Your task to perform on an android device: turn on translation in the chrome app Image 0: 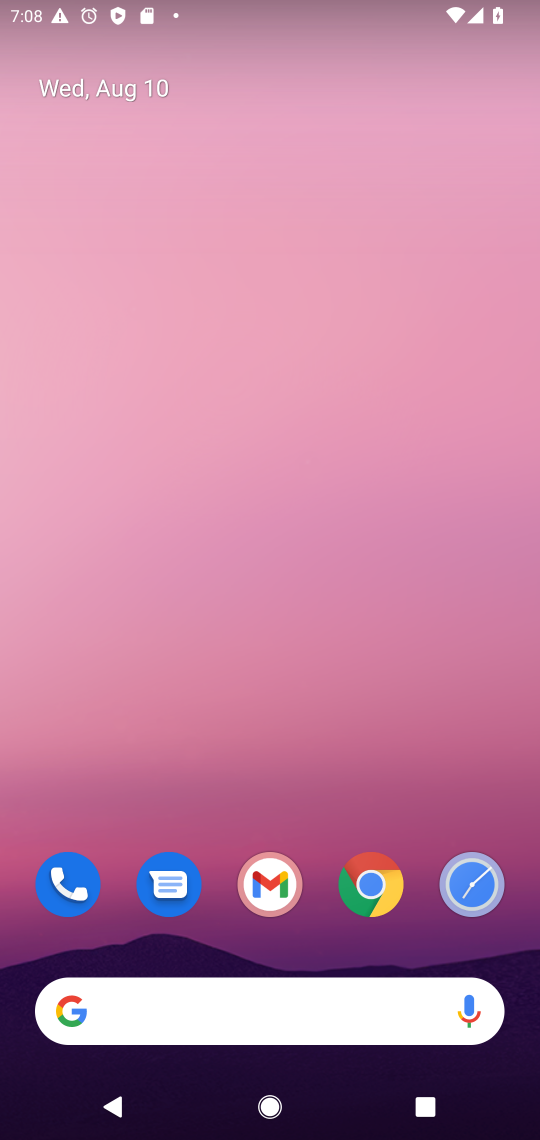
Step 0: click (363, 902)
Your task to perform on an android device: turn on translation in the chrome app Image 1: 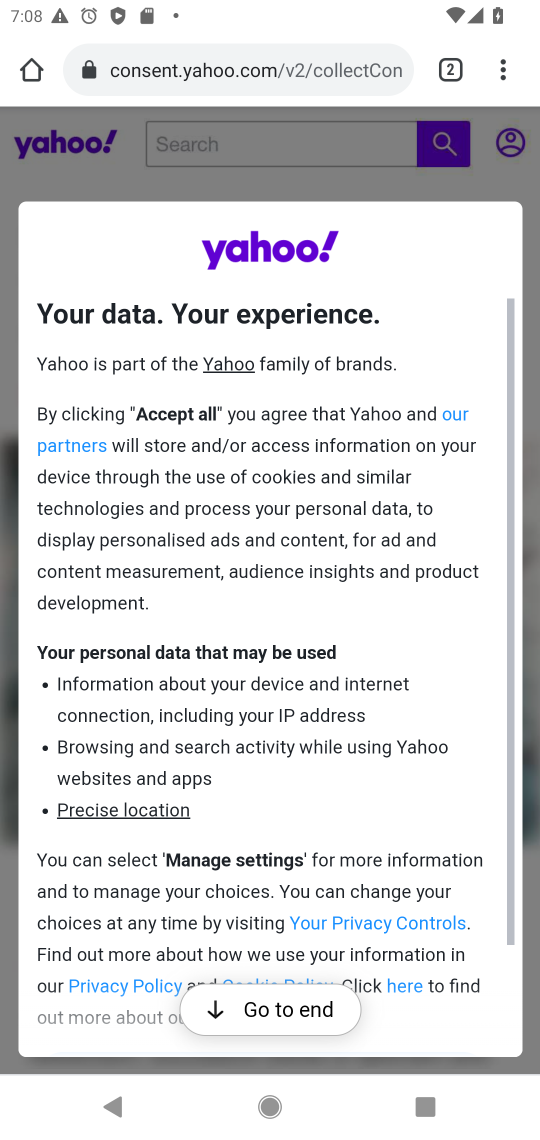
Step 1: click (509, 84)
Your task to perform on an android device: turn on translation in the chrome app Image 2: 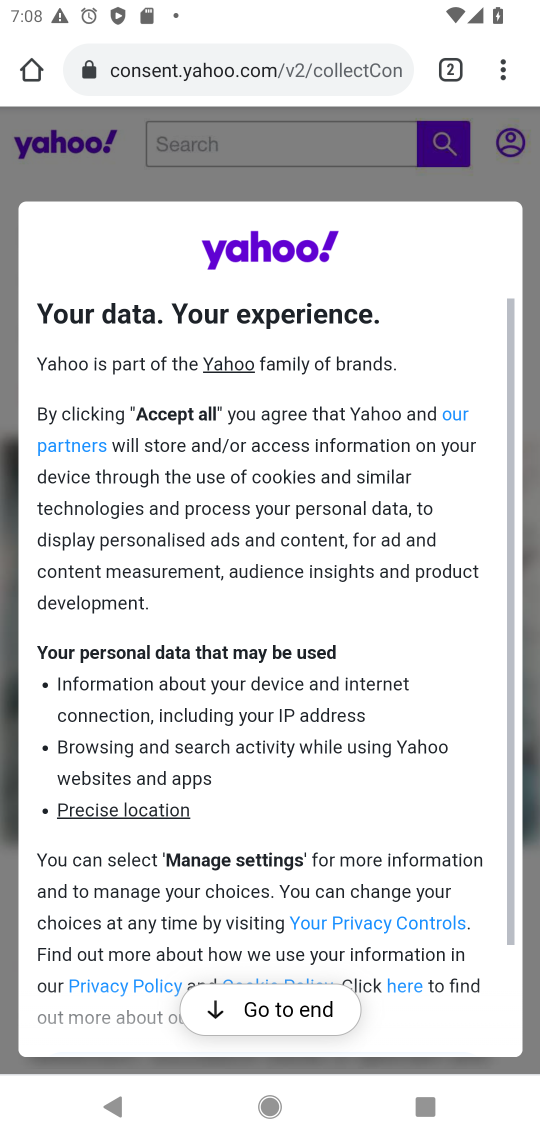
Step 2: click (506, 73)
Your task to perform on an android device: turn on translation in the chrome app Image 3: 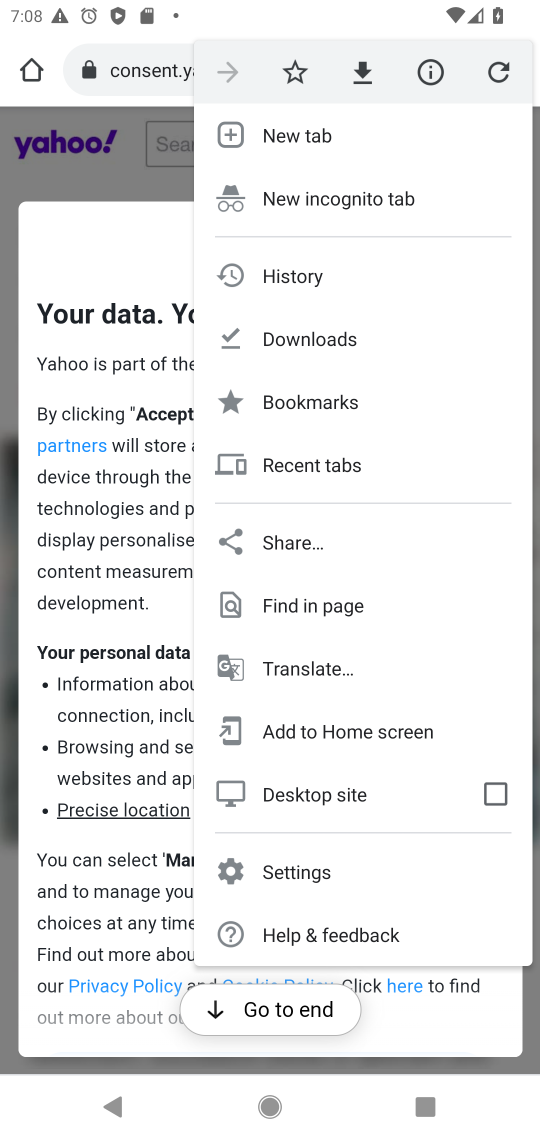
Step 3: click (311, 869)
Your task to perform on an android device: turn on translation in the chrome app Image 4: 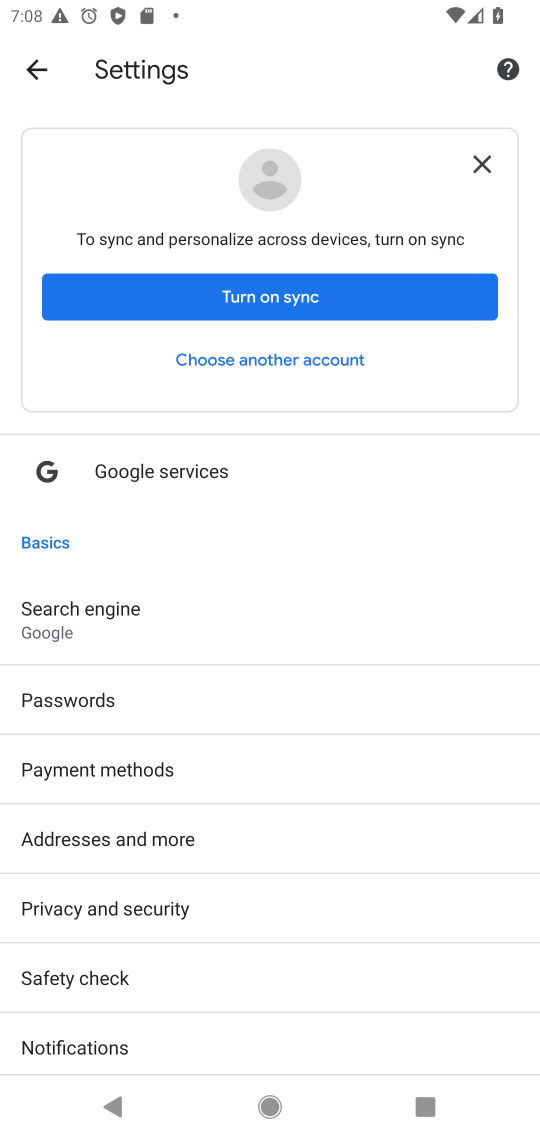
Step 4: drag from (355, 951) to (315, 669)
Your task to perform on an android device: turn on translation in the chrome app Image 5: 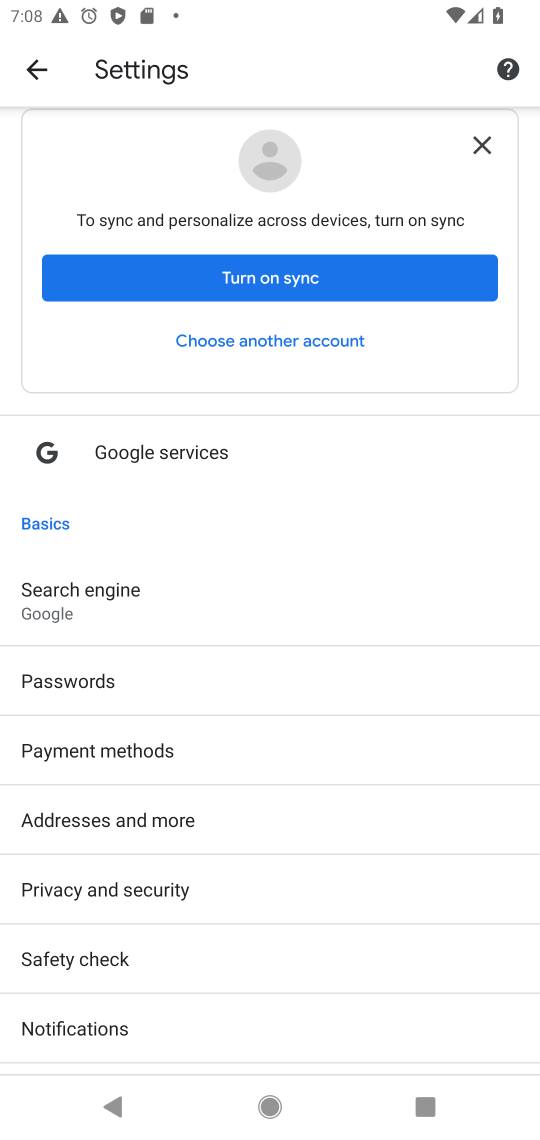
Step 5: drag from (411, 987) to (415, 539)
Your task to perform on an android device: turn on translation in the chrome app Image 6: 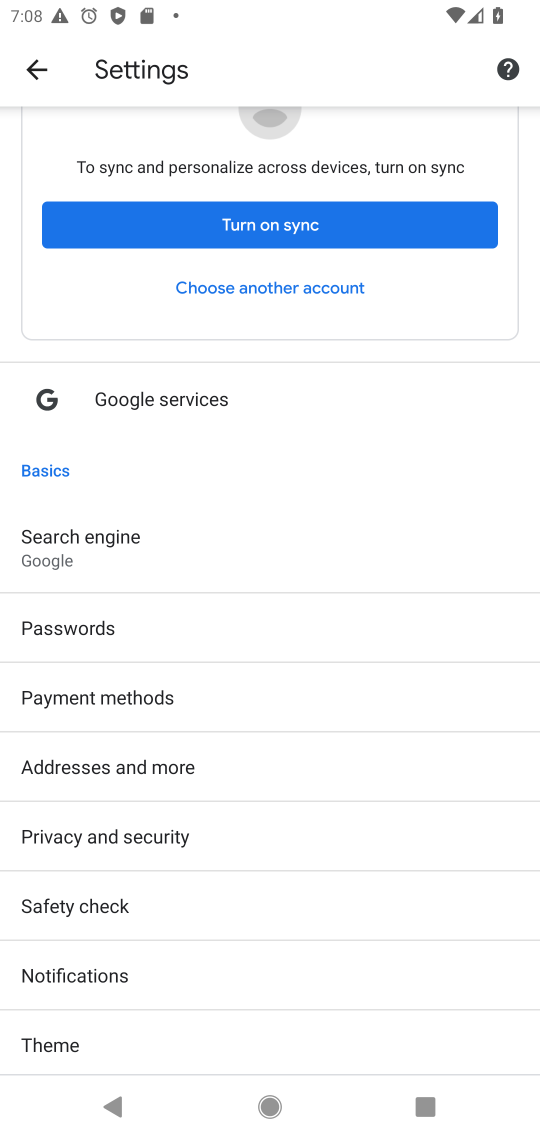
Step 6: drag from (405, 938) to (395, 709)
Your task to perform on an android device: turn on translation in the chrome app Image 7: 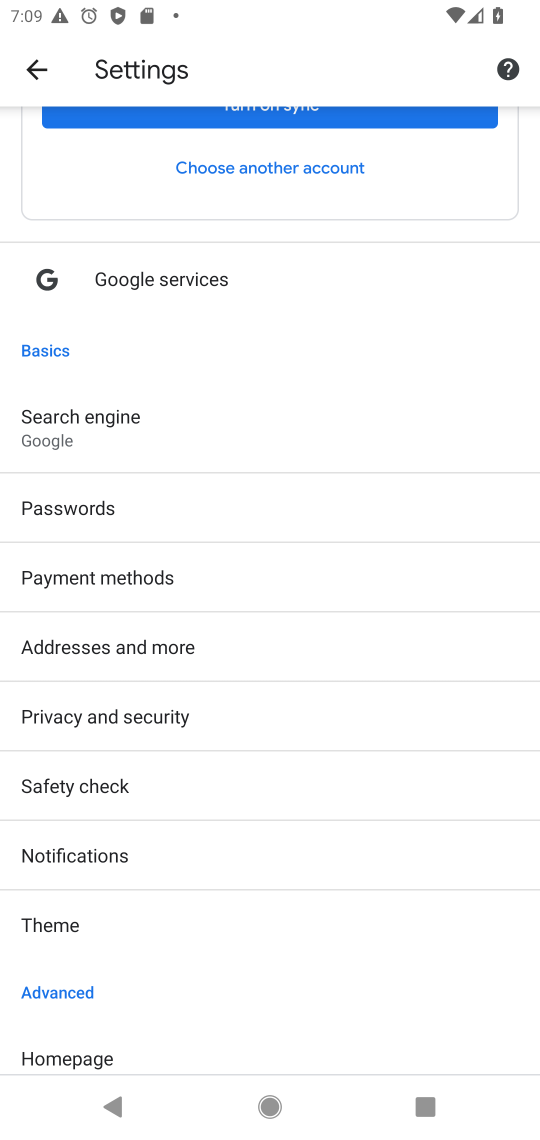
Step 7: drag from (427, 1011) to (470, 534)
Your task to perform on an android device: turn on translation in the chrome app Image 8: 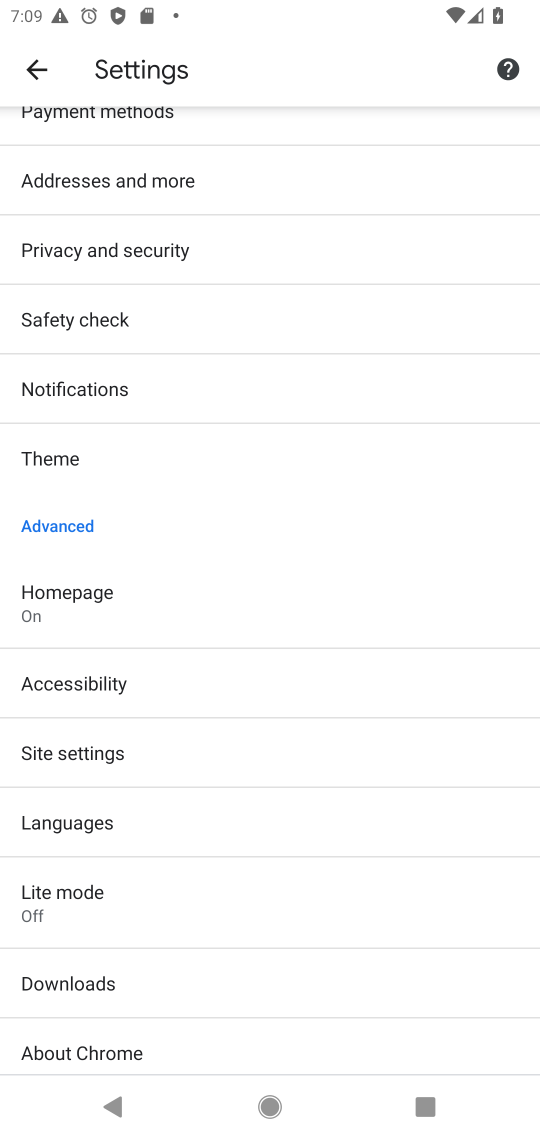
Step 8: click (37, 823)
Your task to perform on an android device: turn on translation in the chrome app Image 9: 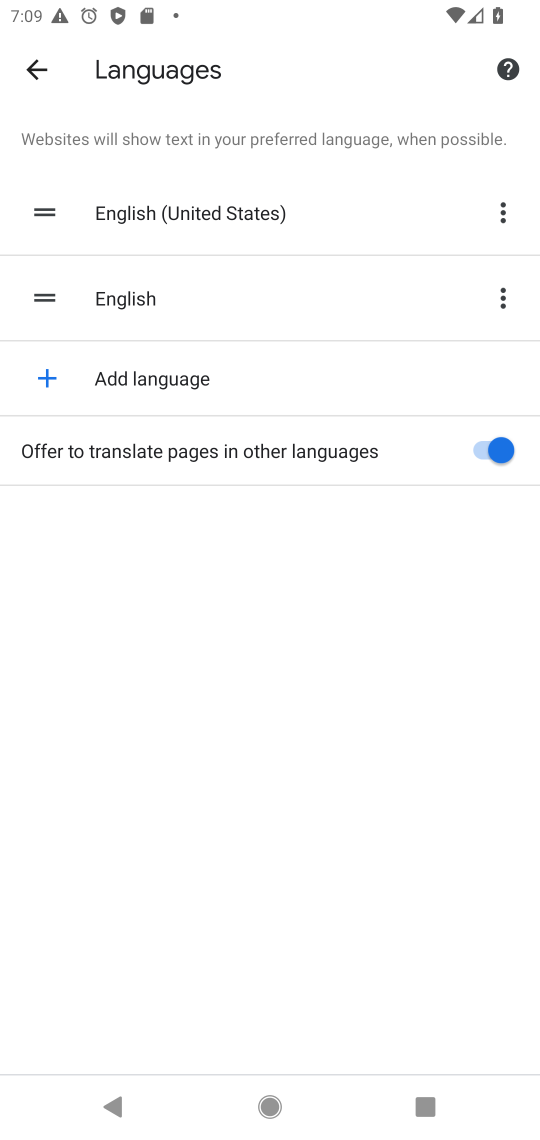
Step 9: task complete